Your task to perform on an android device: all mails in gmail Image 0: 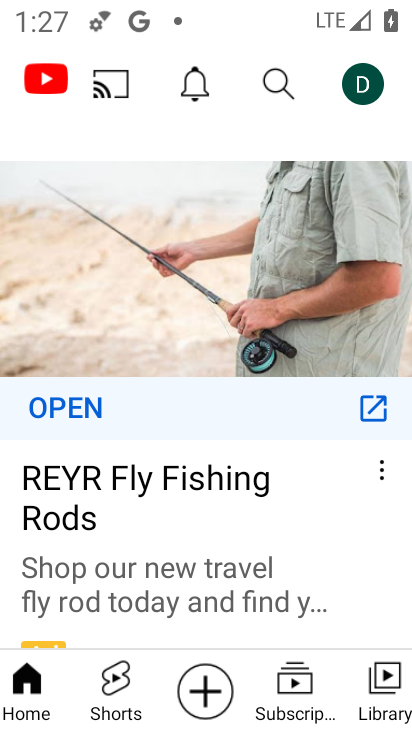
Step 0: press back button
Your task to perform on an android device: all mails in gmail Image 1: 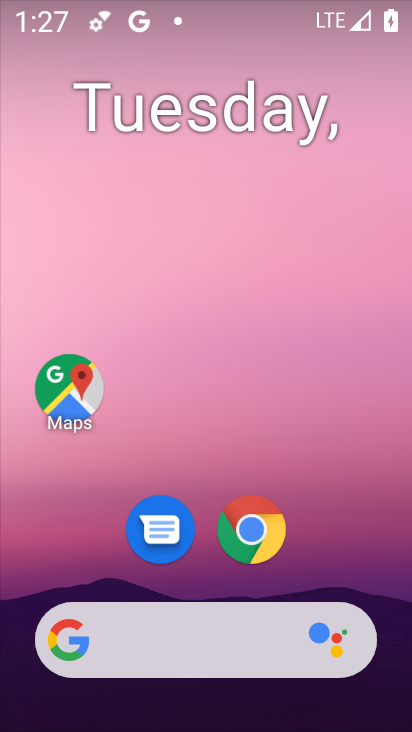
Step 1: drag from (361, 580) to (324, 83)
Your task to perform on an android device: all mails in gmail Image 2: 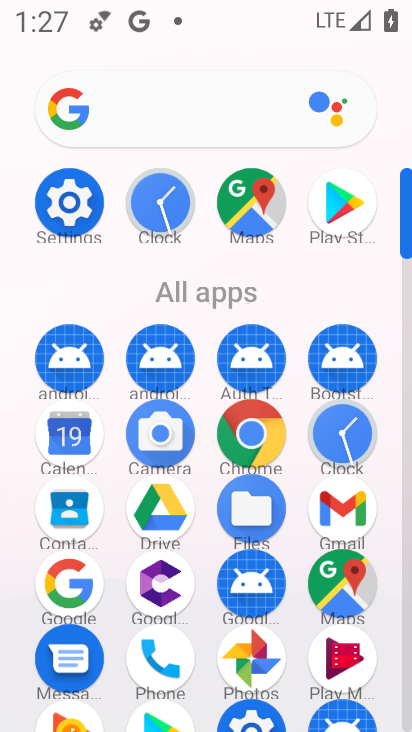
Step 2: click (338, 509)
Your task to perform on an android device: all mails in gmail Image 3: 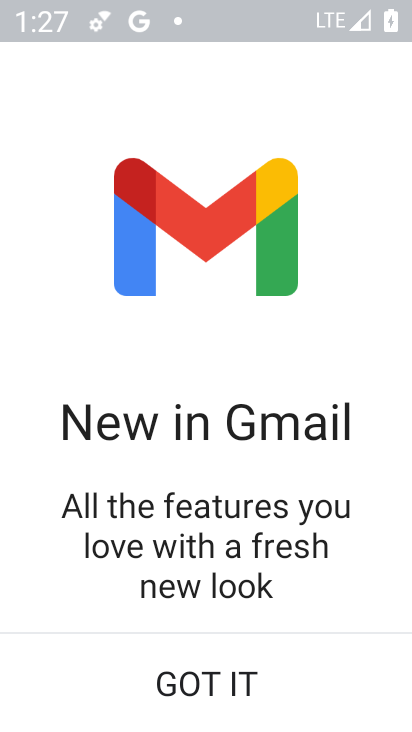
Step 3: click (203, 688)
Your task to perform on an android device: all mails in gmail Image 4: 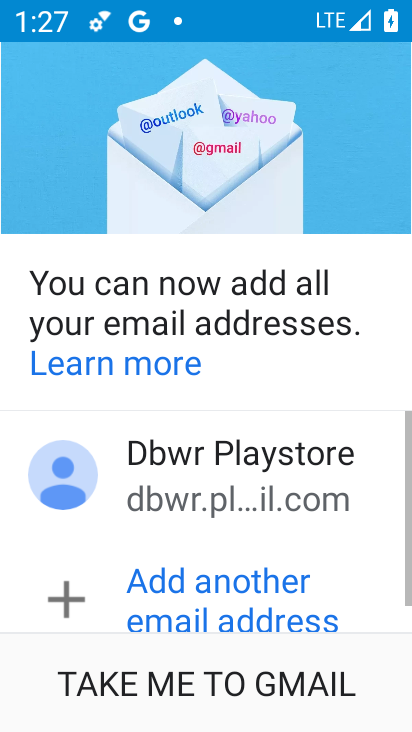
Step 4: click (203, 688)
Your task to perform on an android device: all mails in gmail Image 5: 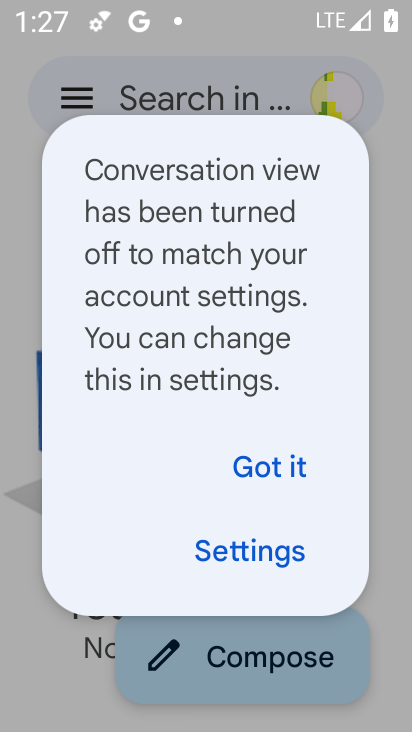
Step 5: click (261, 467)
Your task to perform on an android device: all mails in gmail Image 6: 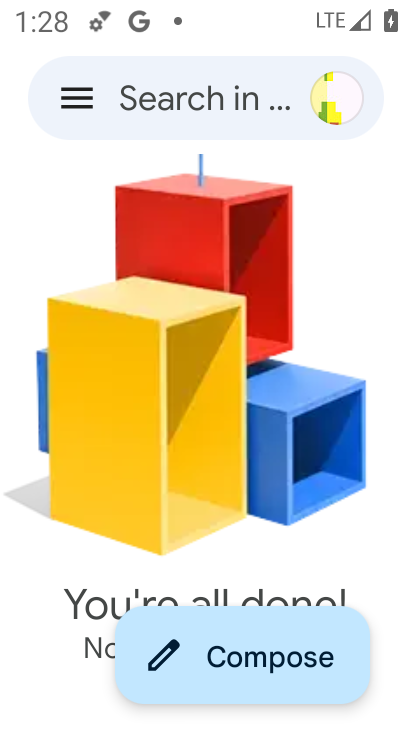
Step 6: click (84, 99)
Your task to perform on an android device: all mails in gmail Image 7: 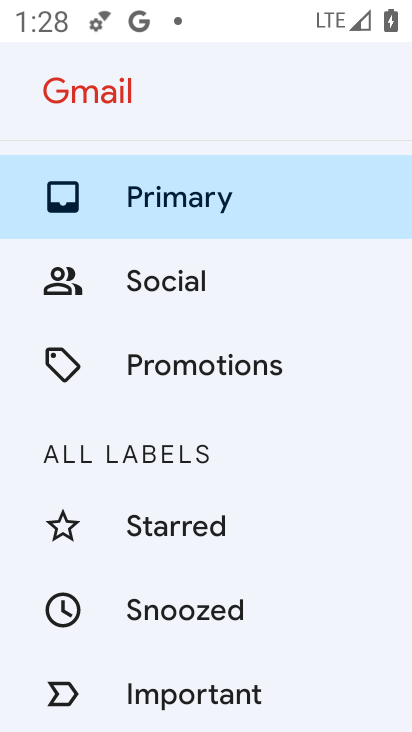
Step 7: drag from (285, 434) to (267, 284)
Your task to perform on an android device: all mails in gmail Image 8: 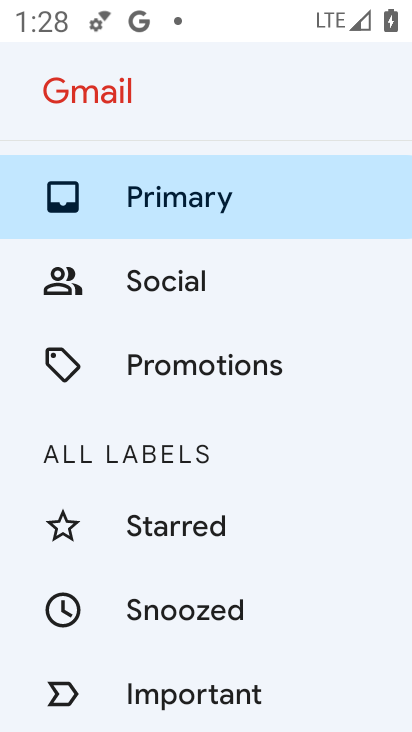
Step 8: drag from (318, 502) to (316, 285)
Your task to perform on an android device: all mails in gmail Image 9: 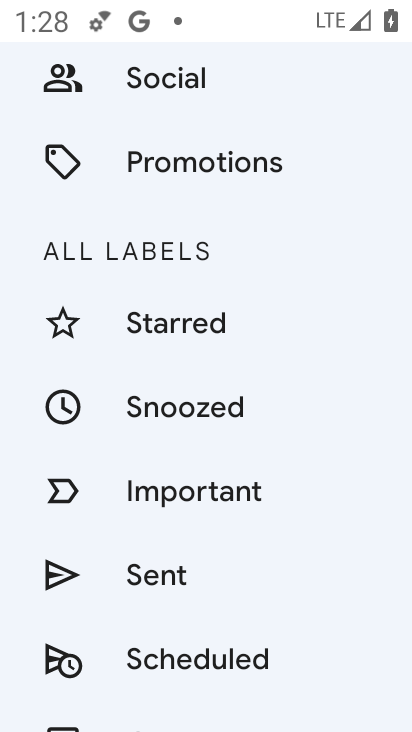
Step 9: drag from (287, 645) to (282, 156)
Your task to perform on an android device: all mails in gmail Image 10: 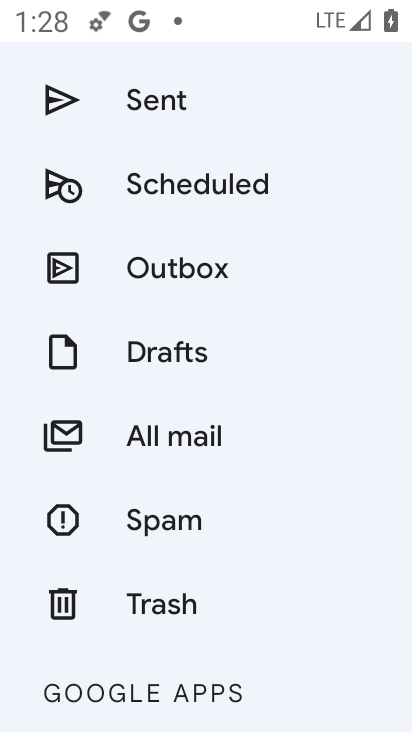
Step 10: click (133, 435)
Your task to perform on an android device: all mails in gmail Image 11: 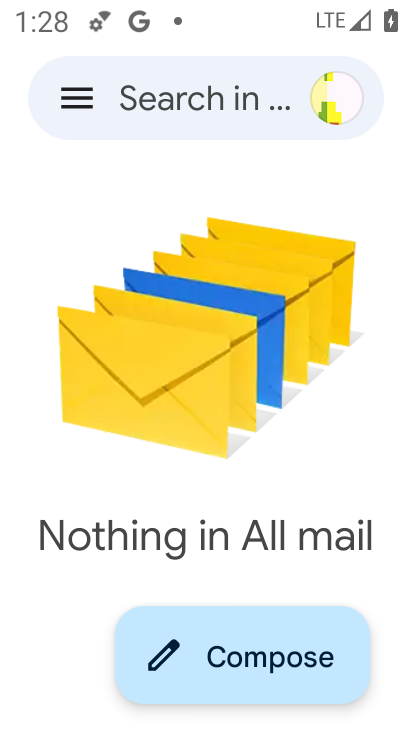
Step 11: task complete